Your task to perform on an android device: Go to privacy settings Image 0: 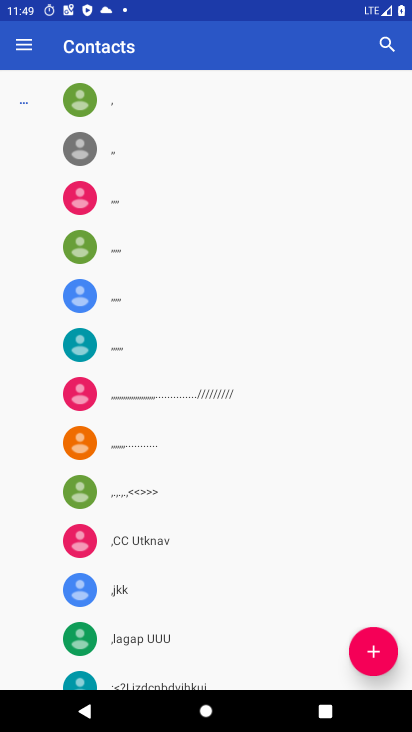
Step 0: press home button
Your task to perform on an android device: Go to privacy settings Image 1: 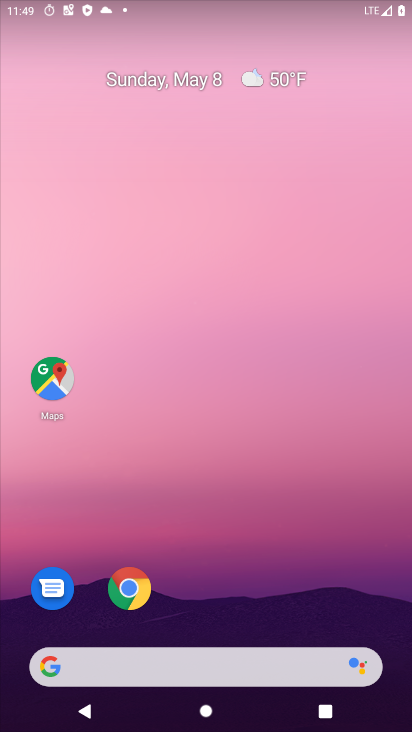
Step 1: drag from (252, 590) to (228, 114)
Your task to perform on an android device: Go to privacy settings Image 2: 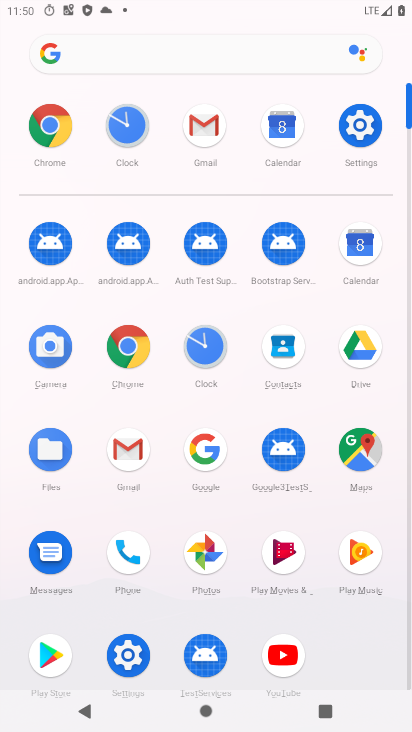
Step 2: click (353, 122)
Your task to perform on an android device: Go to privacy settings Image 3: 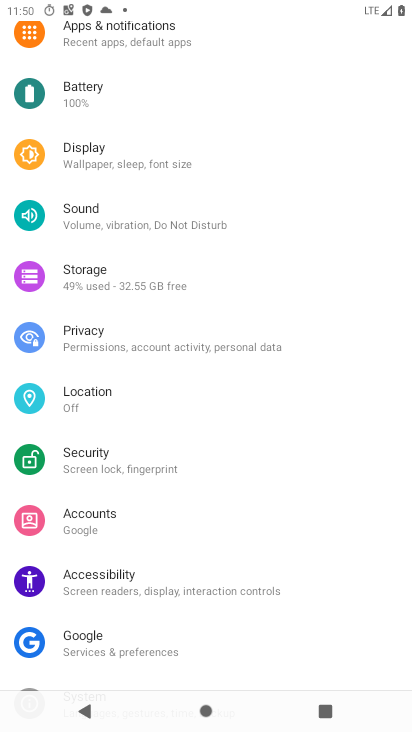
Step 3: click (112, 336)
Your task to perform on an android device: Go to privacy settings Image 4: 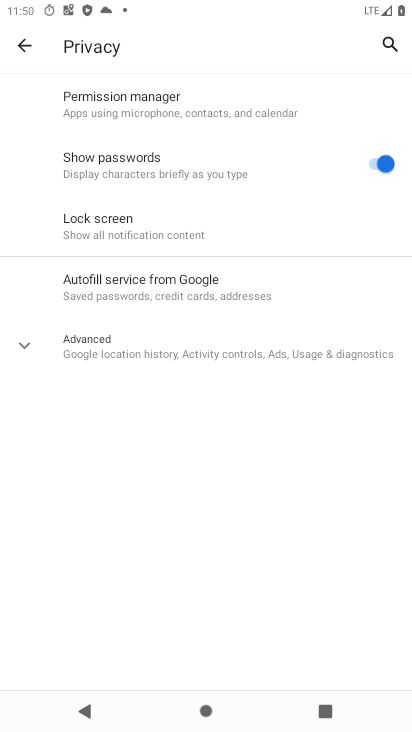
Step 4: task complete